Your task to perform on an android device: turn off picture-in-picture Image 0: 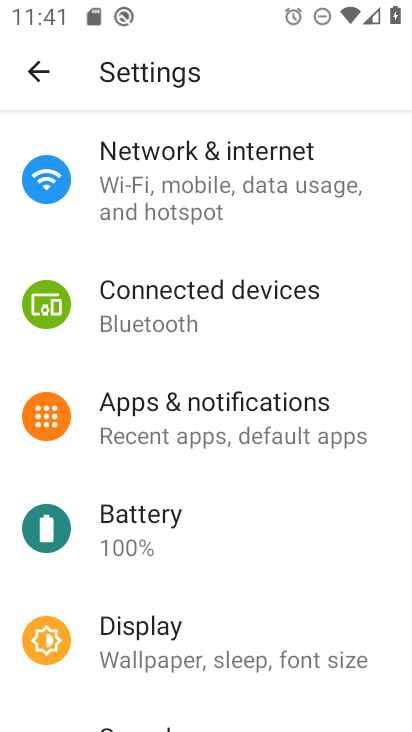
Step 0: press back button
Your task to perform on an android device: turn off picture-in-picture Image 1: 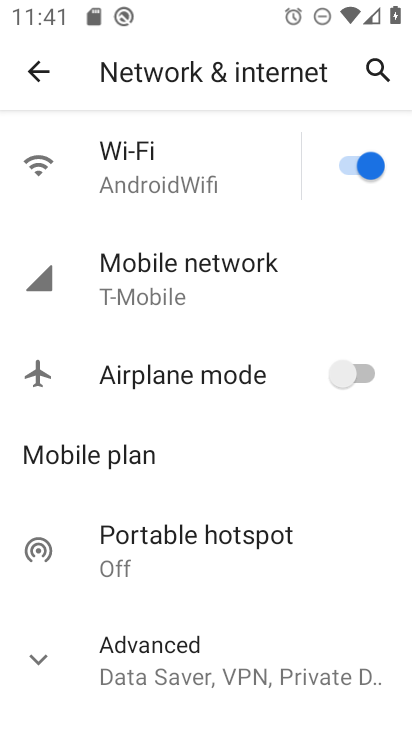
Step 1: click (33, 68)
Your task to perform on an android device: turn off picture-in-picture Image 2: 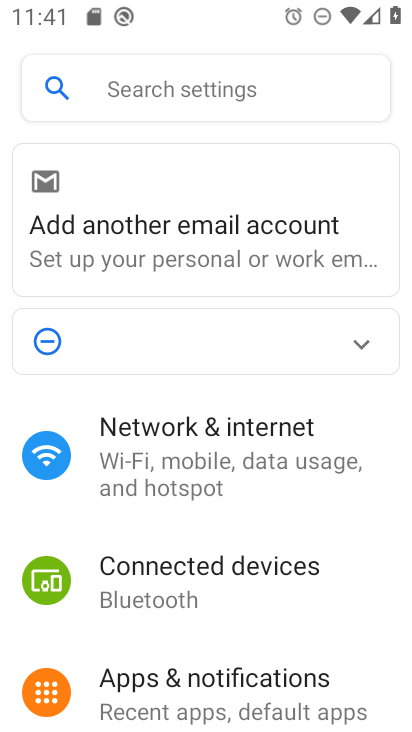
Step 2: press home button
Your task to perform on an android device: turn off picture-in-picture Image 3: 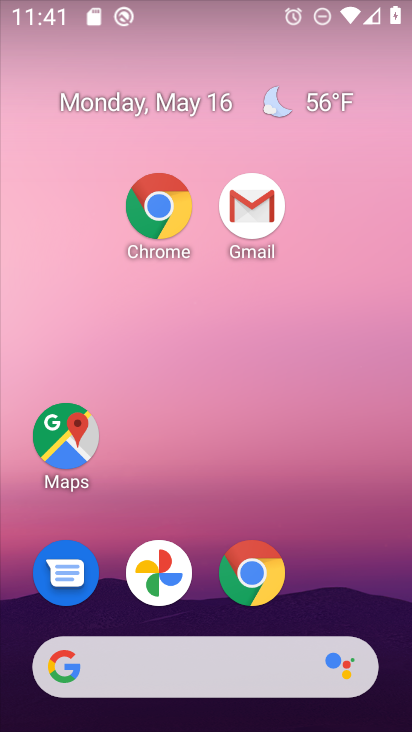
Step 3: click (314, 589)
Your task to perform on an android device: turn off picture-in-picture Image 4: 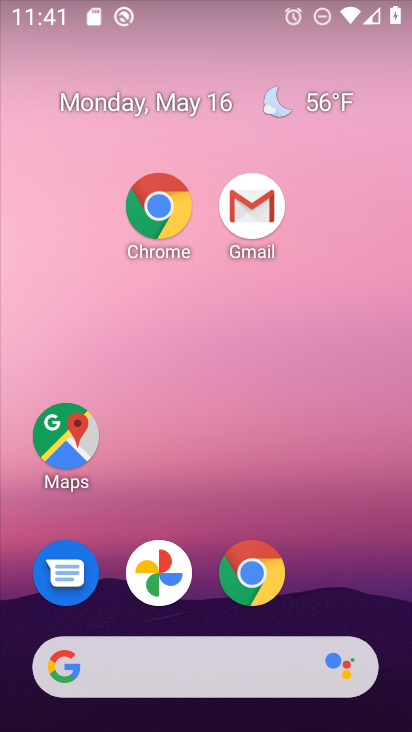
Step 4: drag from (256, 572) to (267, 342)
Your task to perform on an android device: turn off picture-in-picture Image 5: 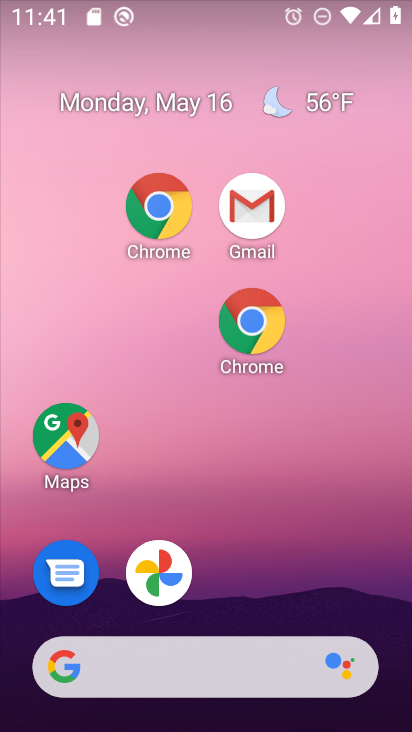
Step 5: drag from (330, 562) to (180, 94)
Your task to perform on an android device: turn off picture-in-picture Image 6: 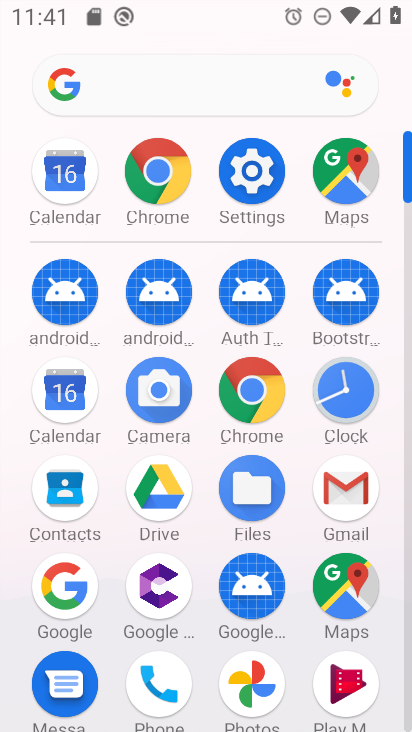
Step 6: drag from (315, 550) to (232, 128)
Your task to perform on an android device: turn off picture-in-picture Image 7: 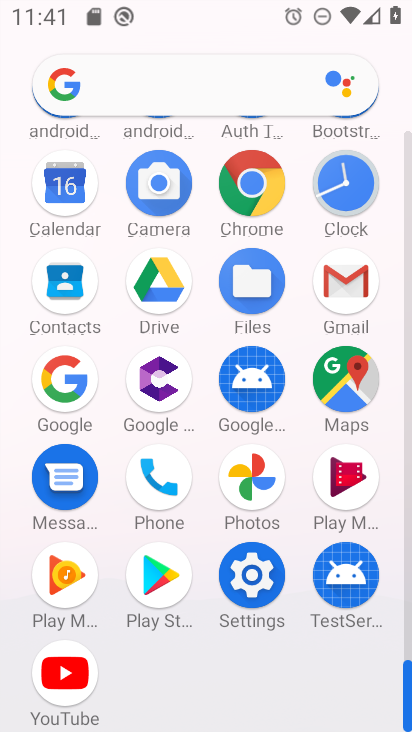
Step 7: drag from (248, 182) to (247, 398)
Your task to perform on an android device: turn off picture-in-picture Image 8: 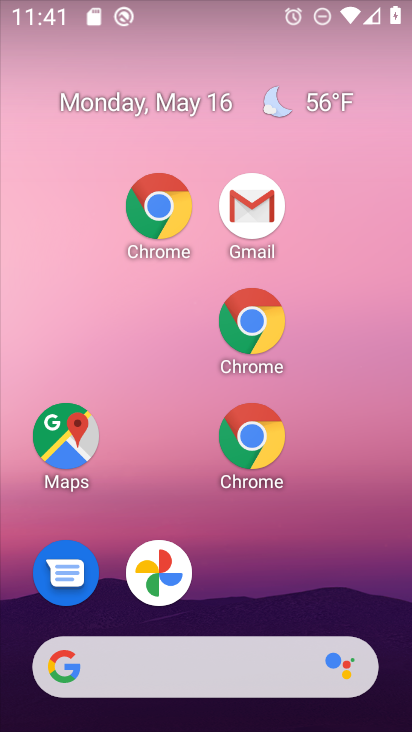
Step 8: drag from (341, 595) to (286, 118)
Your task to perform on an android device: turn off picture-in-picture Image 9: 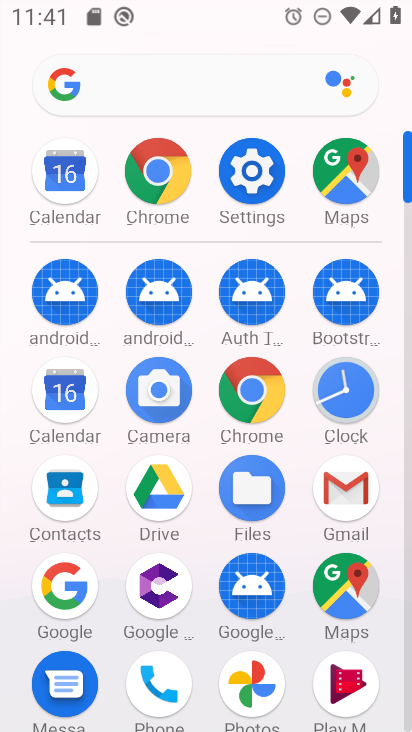
Step 9: drag from (243, 389) to (264, 169)
Your task to perform on an android device: turn off picture-in-picture Image 10: 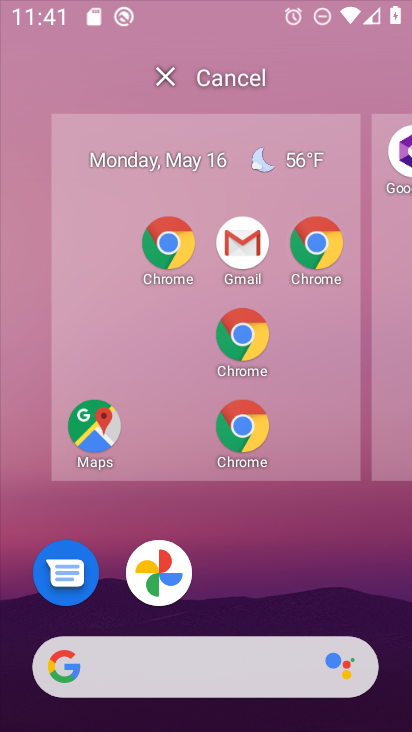
Step 10: click (272, 209)
Your task to perform on an android device: turn off picture-in-picture Image 11: 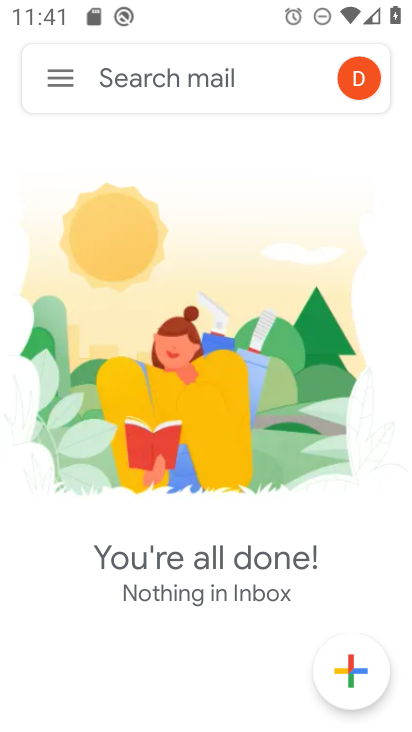
Step 11: press home button
Your task to perform on an android device: turn off picture-in-picture Image 12: 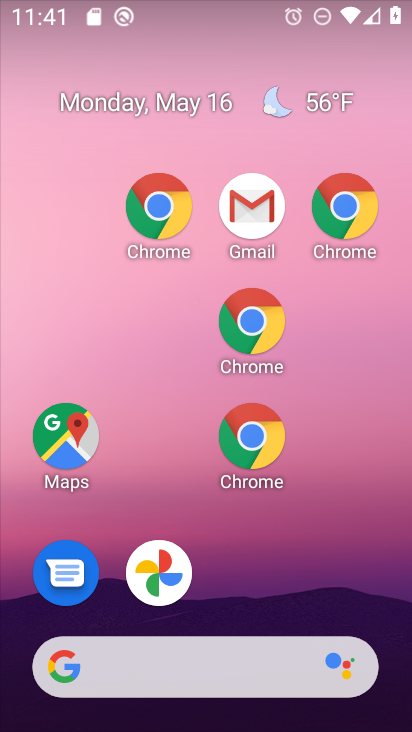
Step 12: drag from (341, 608) to (244, 259)
Your task to perform on an android device: turn off picture-in-picture Image 13: 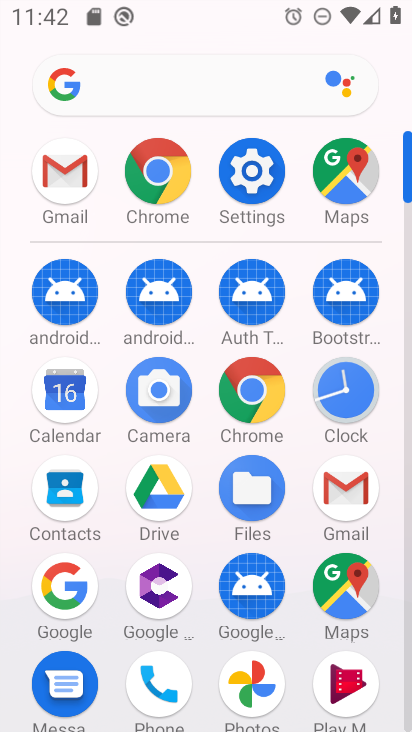
Step 13: drag from (253, 381) to (255, 159)
Your task to perform on an android device: turn off picture-in-picture Image 14: 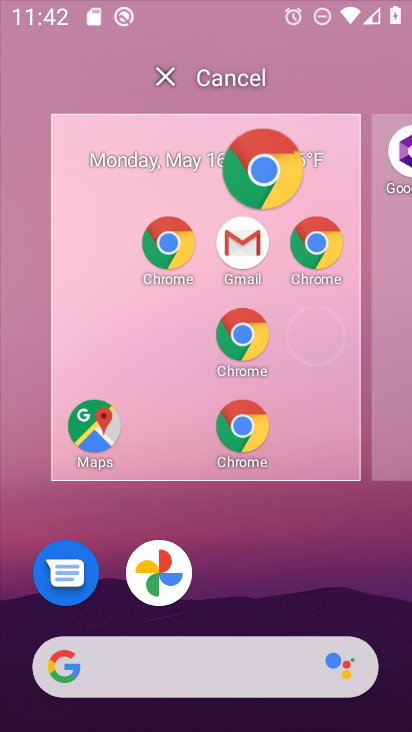
Step 14: click (254, 160)
Your task to perform on an android device: turn off picture-in-picture Image 15: 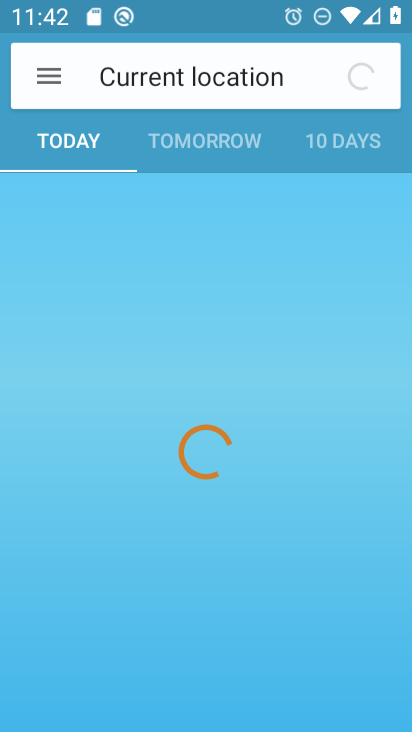
Step 15: drag from (309, 637) to (279, 165)
Your task to perform on an android device: turn off picture-in-picture Image 16: 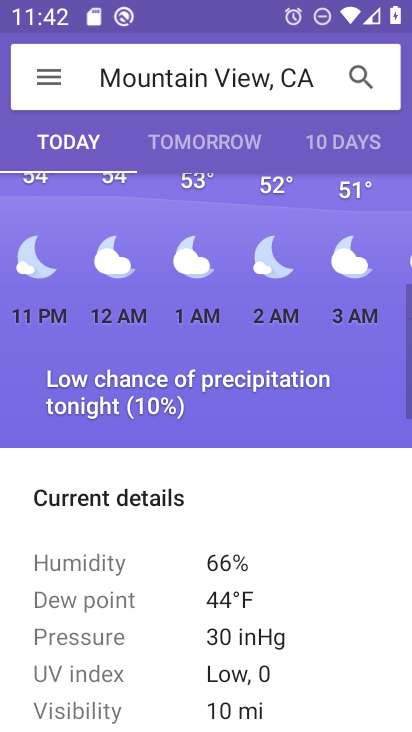
Step 16: press home button
Your task to perform on an android device: turn off picture-in-picture Image 17: 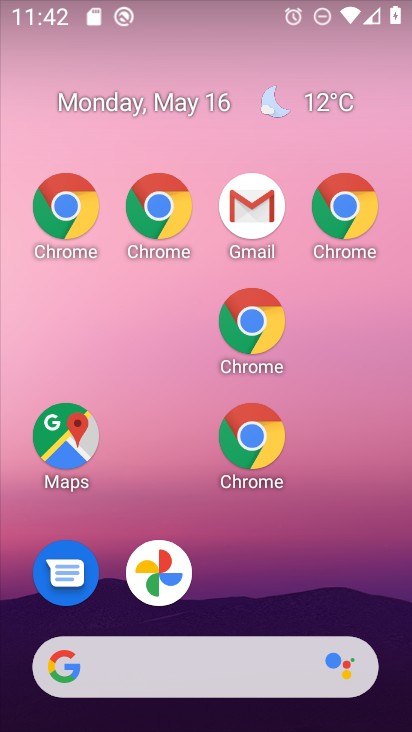
Step 17: drag from (358, 662) to (271, 240)
Your task to perform on an android device: turn off picture-in-picture Image 18: 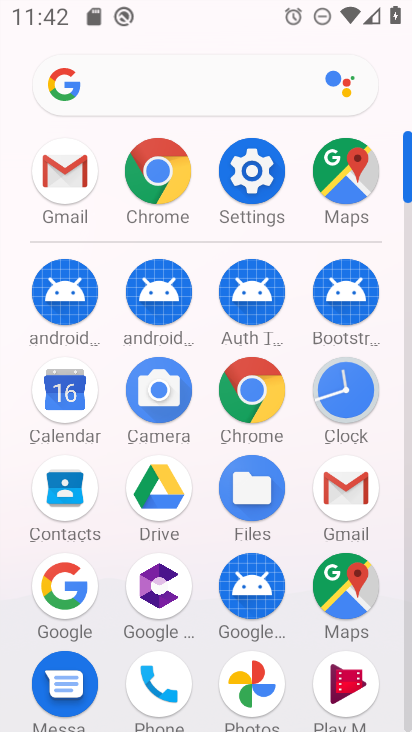
Step 18: drag from (250, 397) to (251, 172)
Your task to perform on an android device: turn off picture-in-picture Image 19: 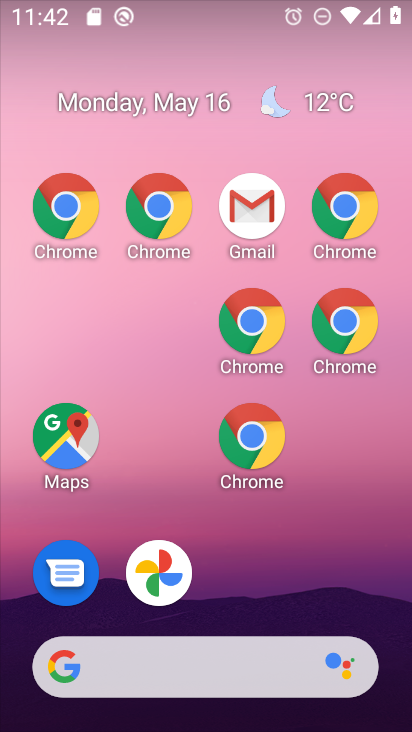
Step 19: press home button
Your task to perform on an android device: turn off picture-in-picture Image 20: 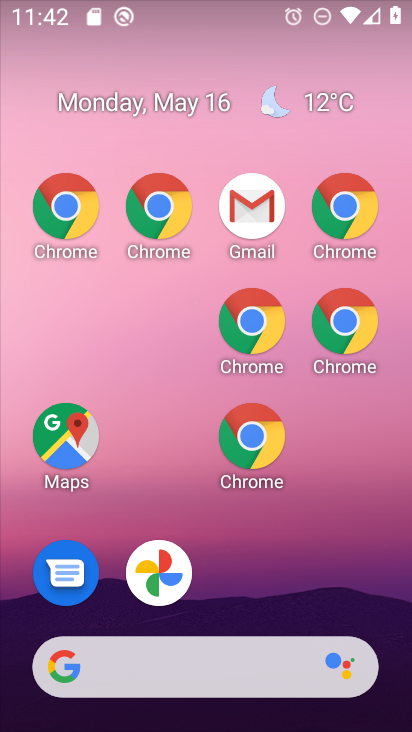
Step 20: drag from (366, 584) to (229, 135)
Your task to perform on an android device: turn off picture-in-picture Image 21: 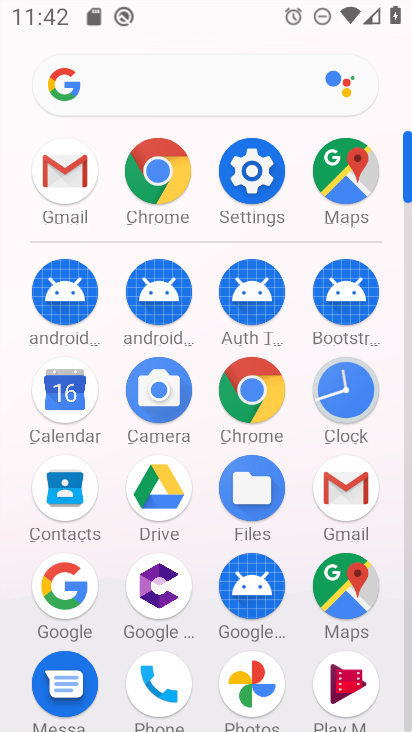
Step 21: click (246, 375)
Your task to perform on an android device: turn off picture-in-picture Image 22: 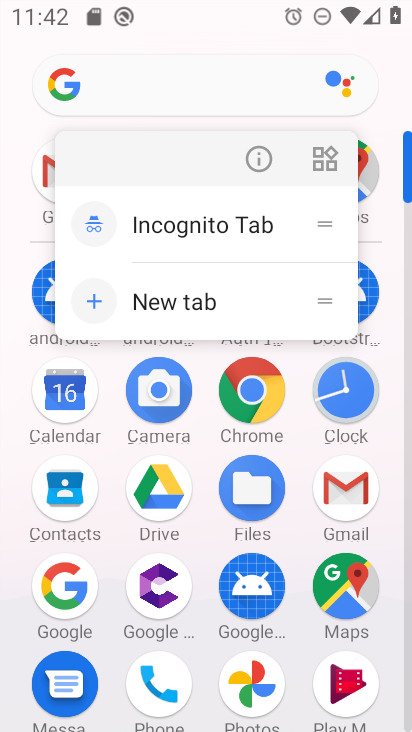
Step 22: click (262, 177)
Your task to perform on an android device: turn off picture-in-picture Image 23: 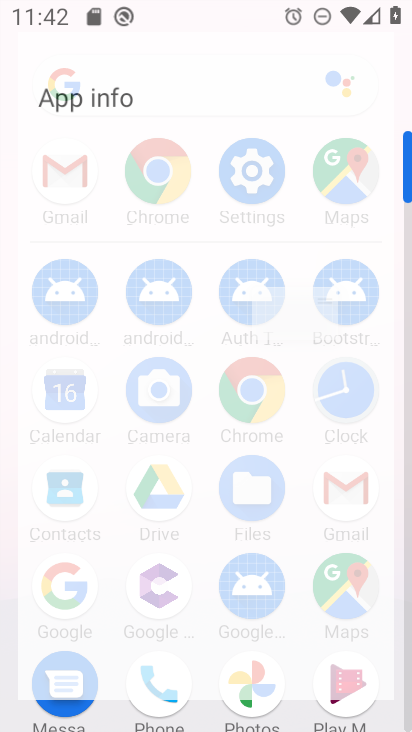
Step 23: click (261, 169)
Your task to perform on an android device: turn off picture-in-picture Image 24: 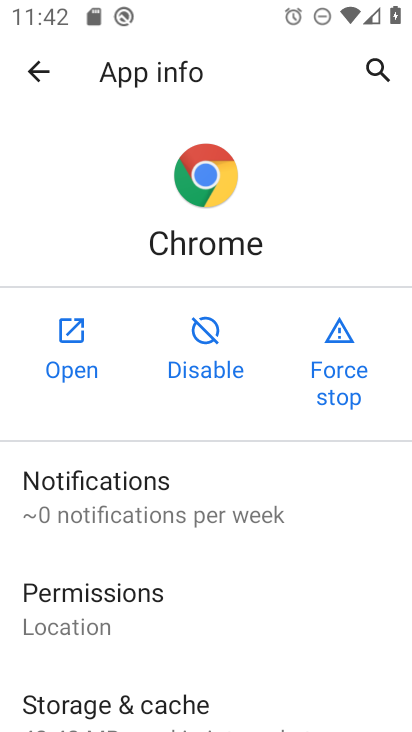
Step 24: drag from (108, 682) to (132, 243)
Your task to perform on an android device: turn off picture-in-picture Image 25: 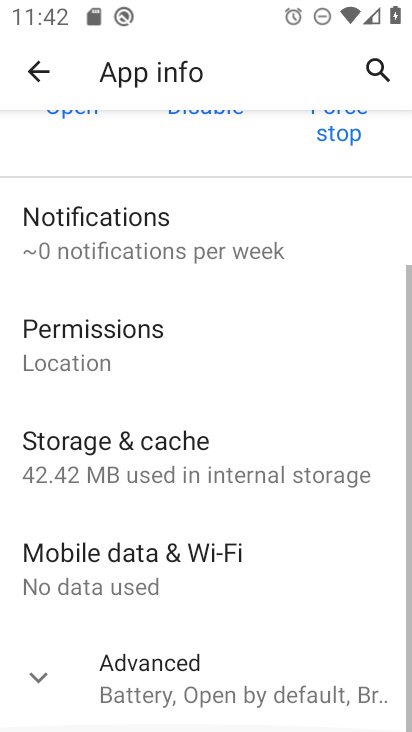
Step 25: drag from (102, 613) to (129, 159)
Your task to perform on an android device: turn off picture-in-picture Image 26: 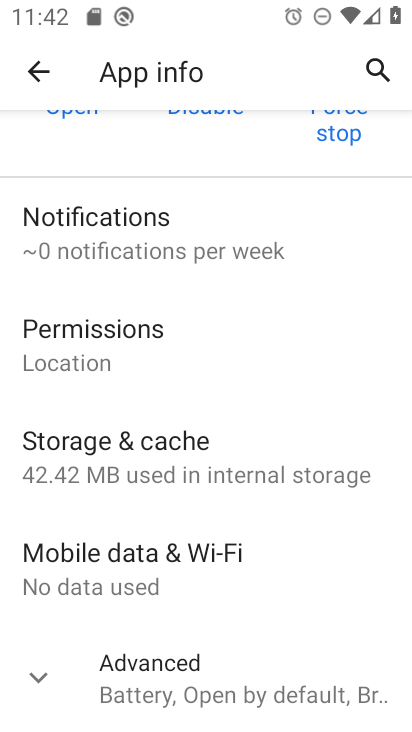
Step 26: click (152, 672)
Your task to perform on an android device: turn off picture-in-picture Image 27: 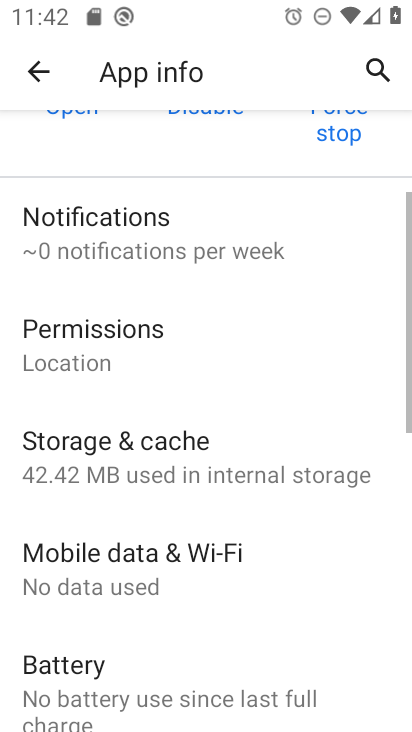
Step 27: drag from (150, 670) to (167, 320)
Your task to perform on an android device: turn off picture-in-picture Image 28: 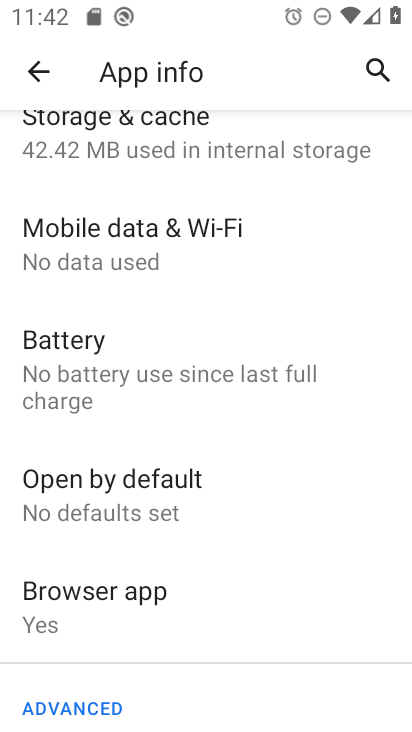
Step 28: drag from (164, 577) to (162, 102)
Your task to perform on an android device: turn off picture-in-picture Image 29: 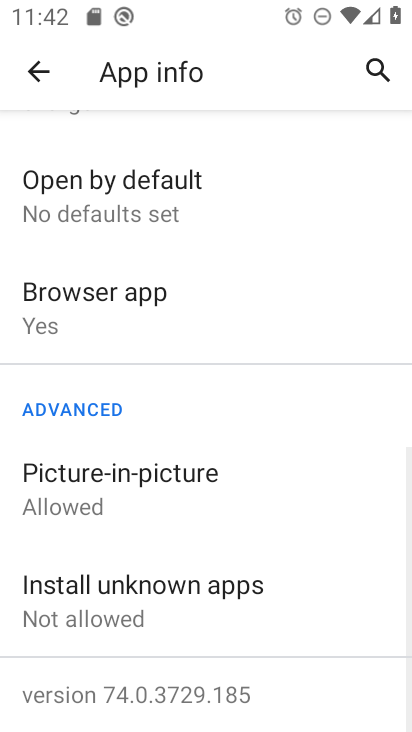
Step 29: drag from (171, 491) to (138, 183)
Your task to perform on an android device: turn off picture-in-picture Image 30: 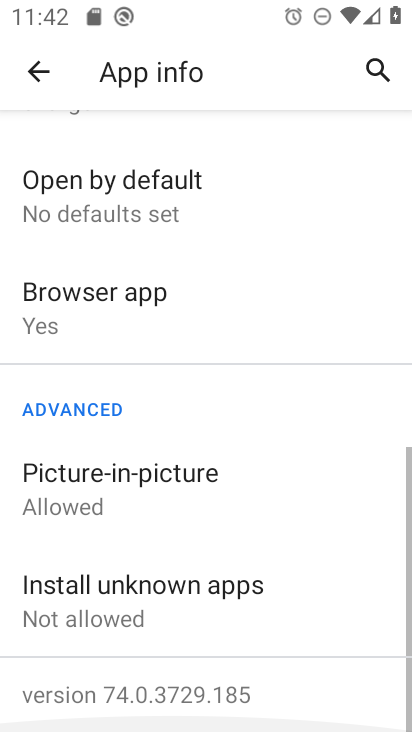
Step 30: drag from (145, 491) to (163, 176)
Your task to perform on an android device: turn off picture-in-picture Image 31: 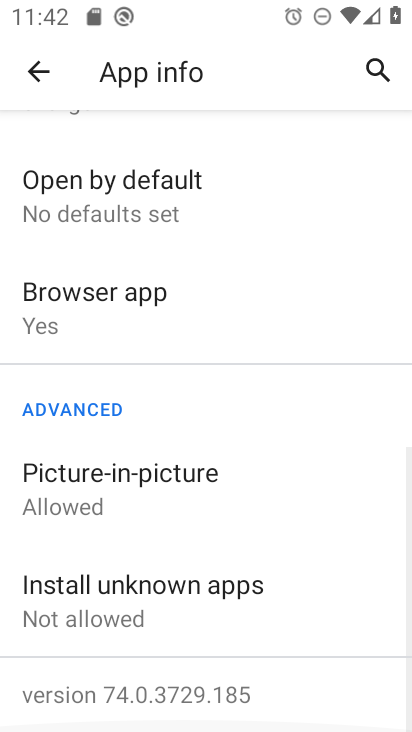
Step 31: drag from (150, 426) to (150, 76)
Your task to perform on an android device: turn off picture-in-picture Image 32: 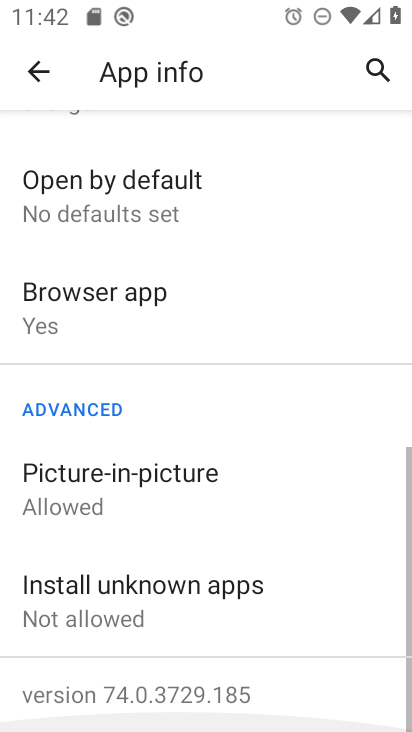
Step 32: drag from (195, 523) to (159, 180)
Your task to perform on an android device: turn off picture-in-picture Image 33: 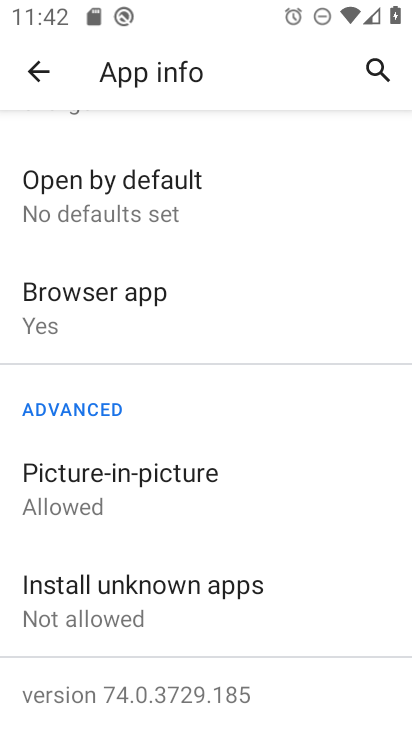
Step 33: click (94, 486)
Your task to perform on an android device: turn off picture-in-picture Image 34: 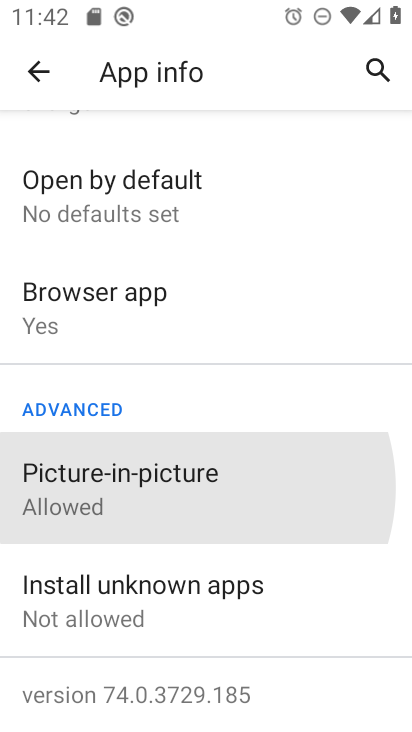
Step 34: click (94, 486)
Your task to perform on an android device: turn off picture-in-picture Image 35: 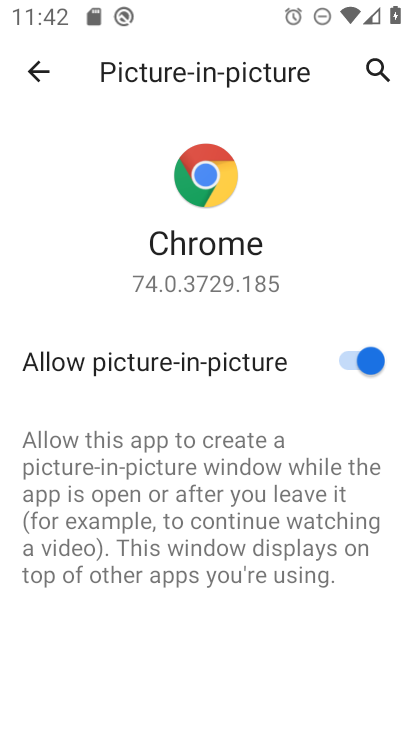
Step 35: click (367, 363)
Your task to perform on an android device: turn off picture-in-picture Image 36: 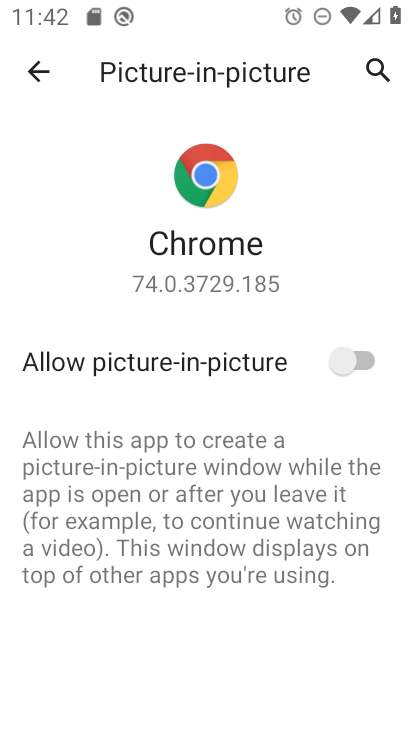
Step 36: task complete